Your task to perform on an android device: Open Amazon Image 0: 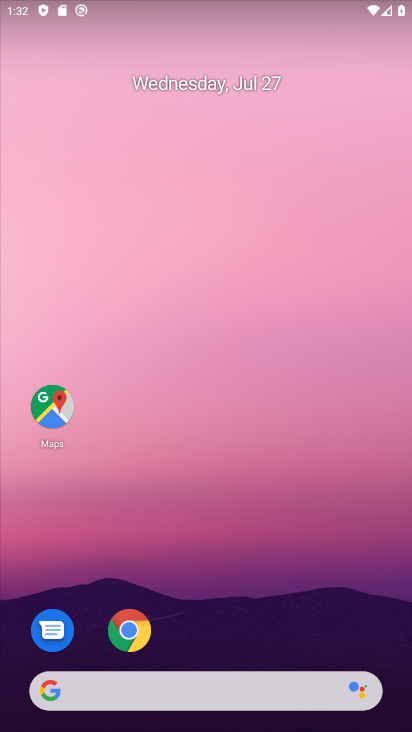
Step 0: click (129, 629)
Your task to perform on an android device: Open Amazon Image 1: 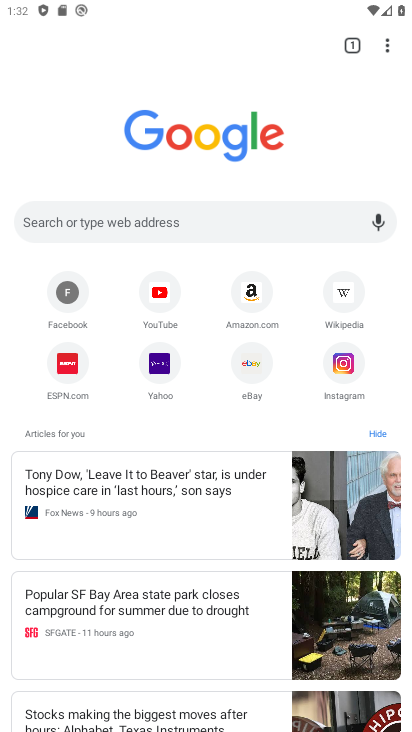
Step 1: click (119, 223)
Your task to perform on an android device: Open Amazon Image 2: 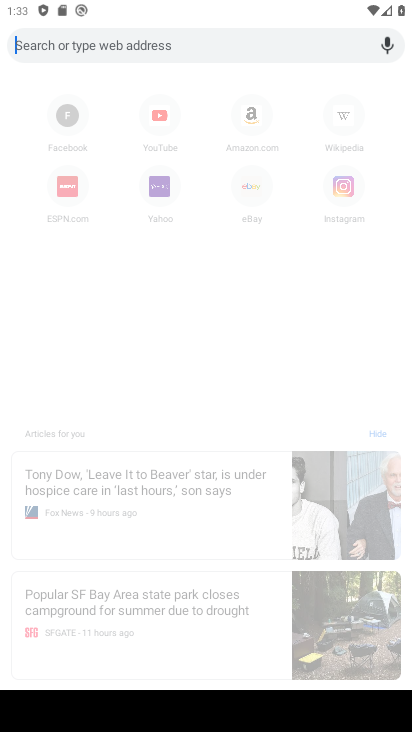
Step 2: type "amazon"
Your task to perform on an android device: Open Amazon Image 3: 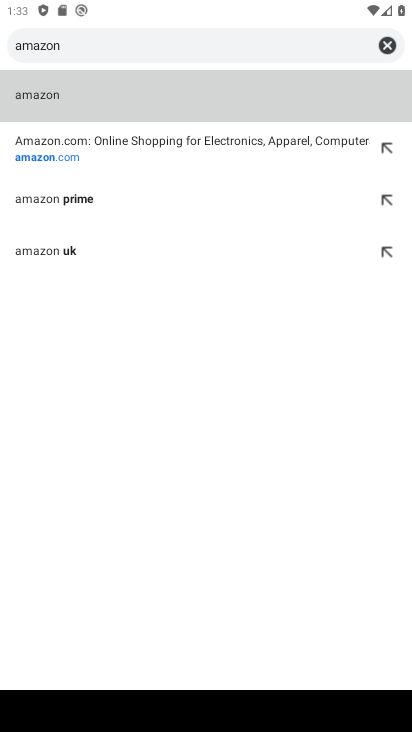
Step 3: click (78, 97)
Your task to perform on an android device: Open Amazon Image 4: 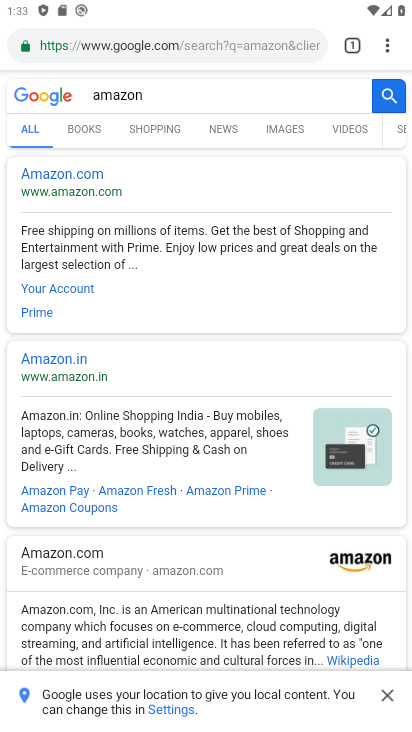
Step 4: click (64, 184)
Your task to perform on an android device: Open Amazon Image 5: 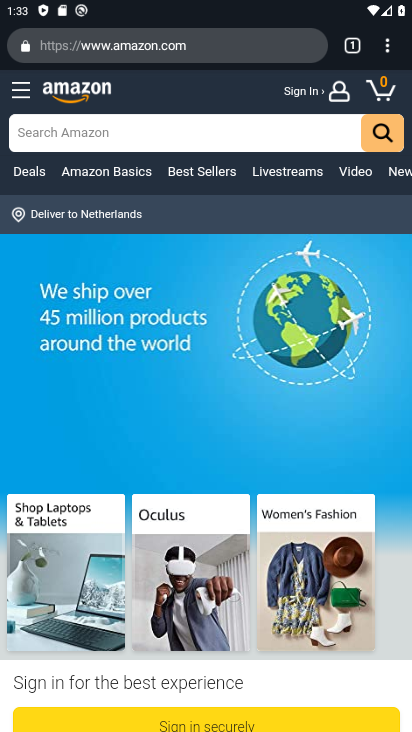
Step 5: task complete